Your task to perform on an android device: When is my next appointment? Image 0: 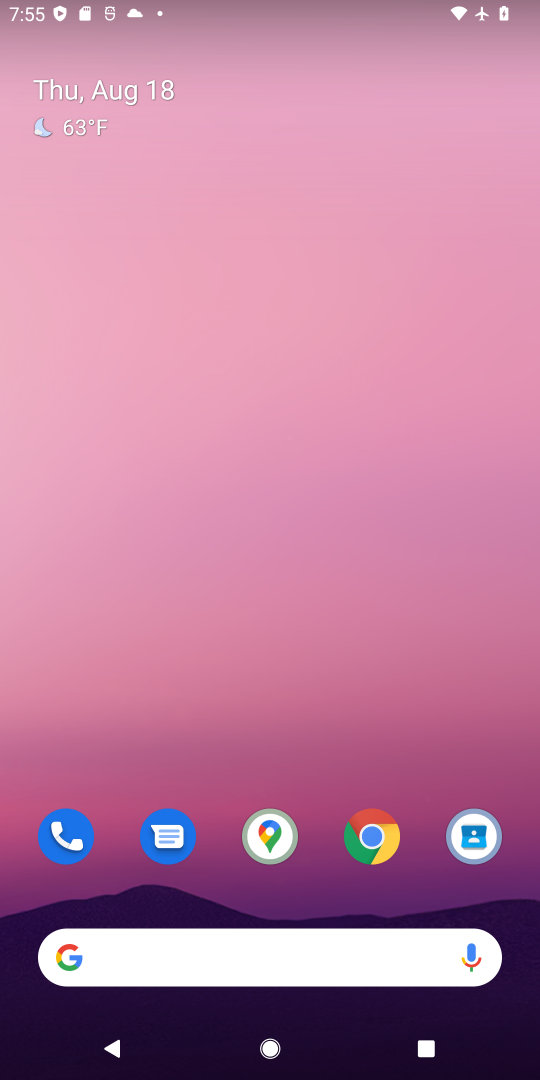
Step 0: drag from (321, 739) to (397, 4)
Your task to perform on an android device: When is my next appointment? Image 1: 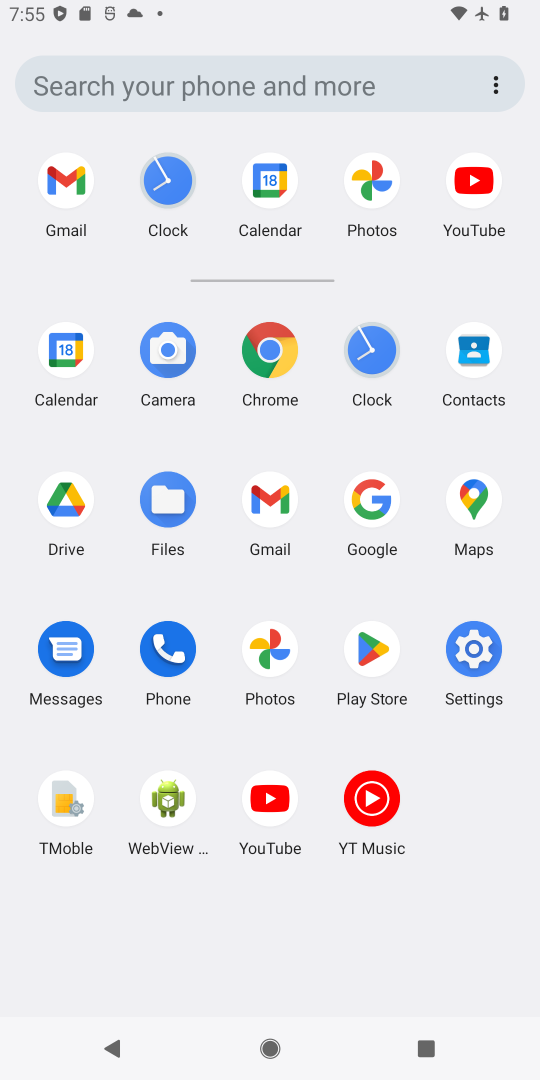
Step 1: click (283, 187)
Your task to perform on an android device: When is my next appointment? Image 2: 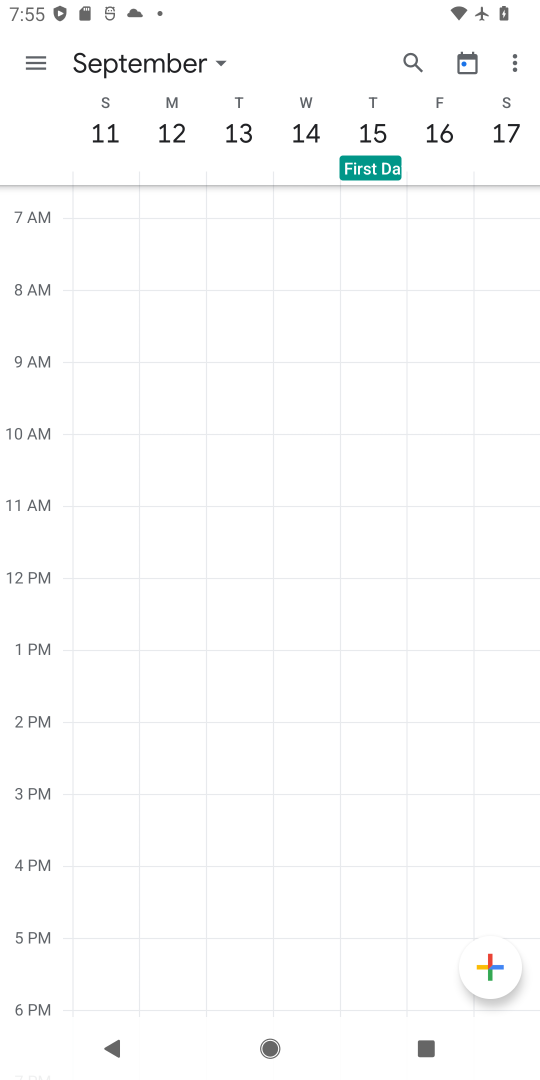
Step 2: click (129, 55)
Your task to perform on an android device: When is my next appointment? Image 3: 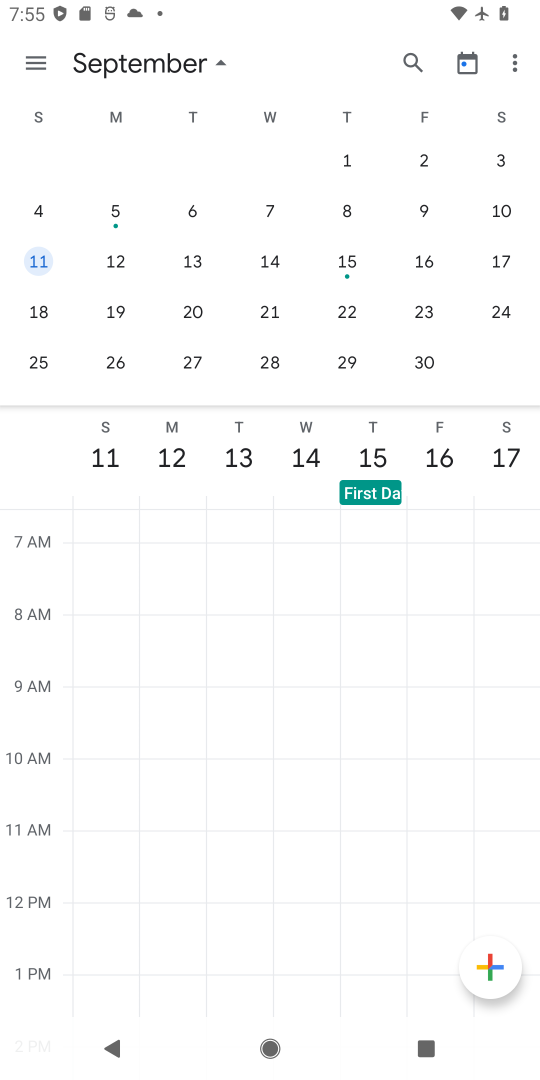
Step 3: drag from (102, 322) to (537, 288)
Your task to perform on an android device: When is my next appointment? Image 4: 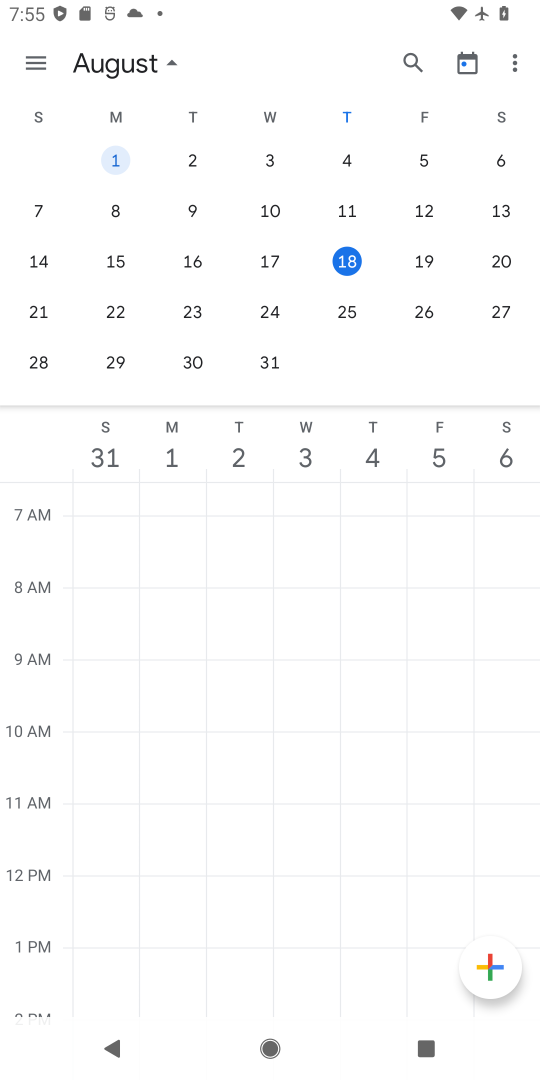
Step 4: click (340, 254)
Your task to perform on an android device: When is my next appointment? Image 5: 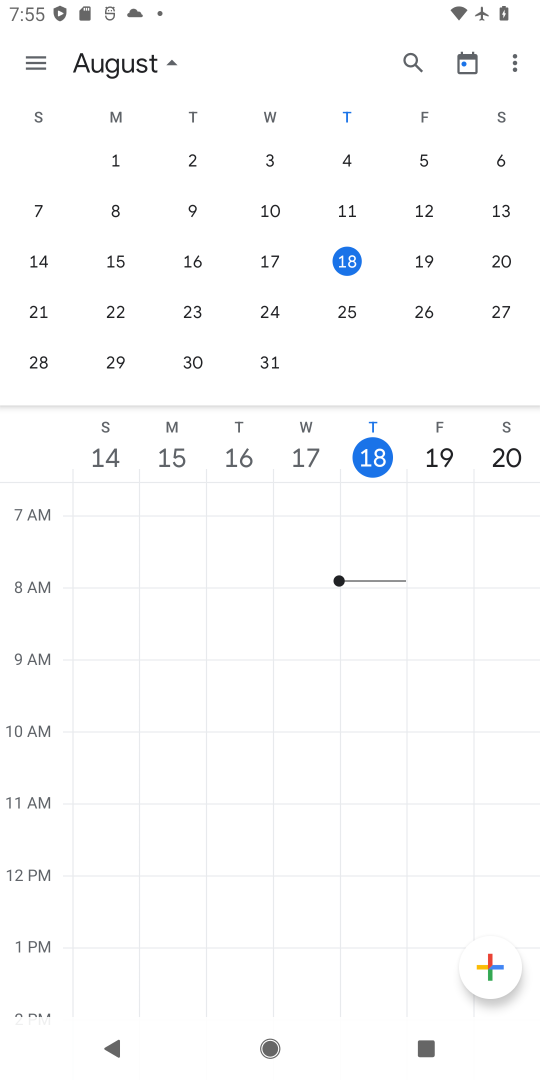
Step 5: task complete